Your task to perform on an android device: Open calendar and show me the fourth week of next month Image 0: 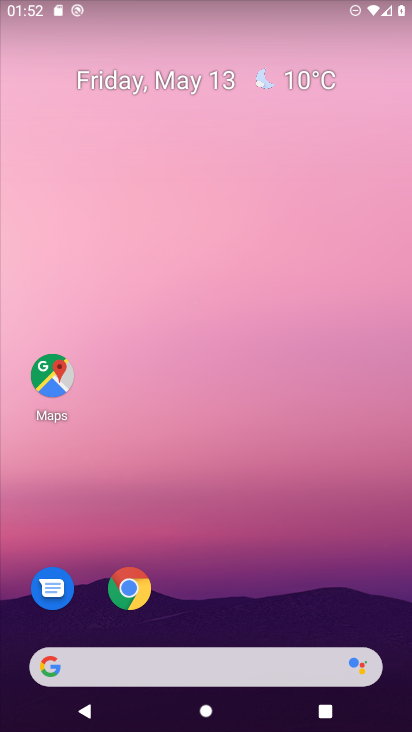
Step 0: drag from (267, 608) to (214, 71)
Your task to perform on an android device: Open calendar and show me the fourth week of next month Image 1: 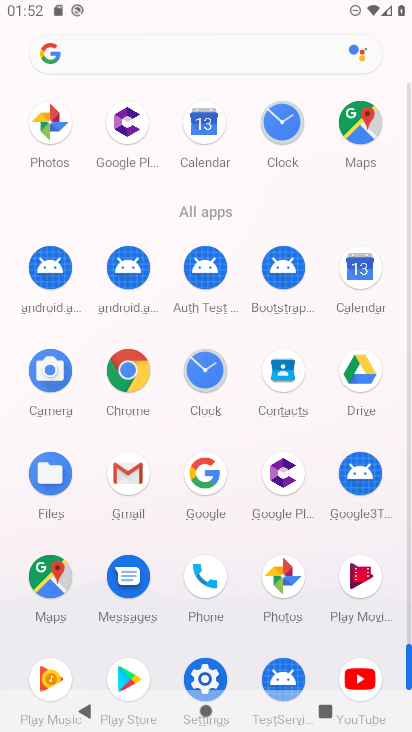
Step 1: click (361, 269)
Your task to perform on an android device: Open calendar and show me the fourth week of next month Image 2: 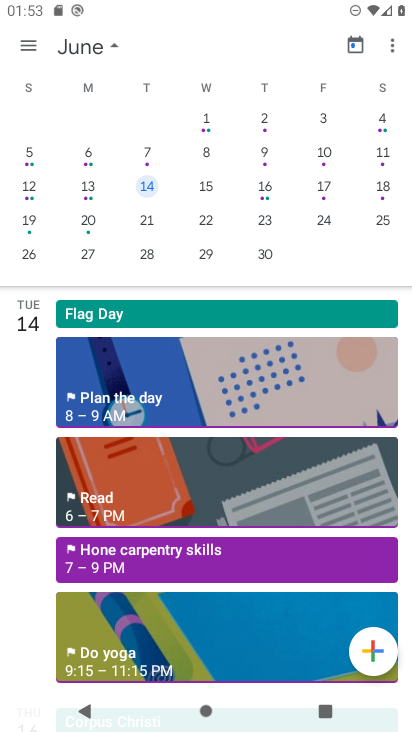
Step 2: click (148, 252)
Your task to perform on an android device: Open calendar and show me the fourth week of next month Image 3: 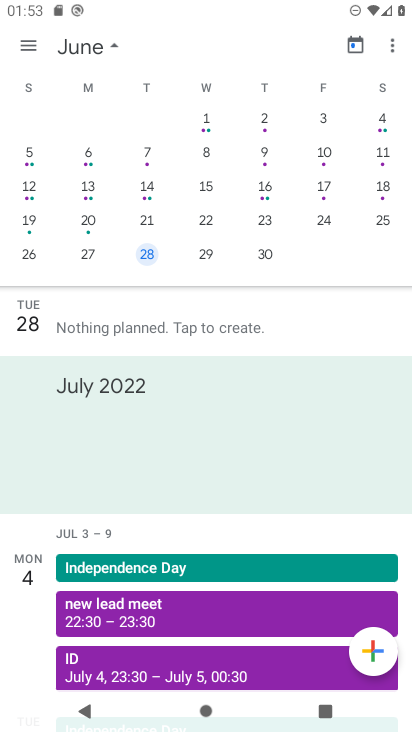
Step 3: task complete